Your task to perform on an android device: change notifications settings Image 0: 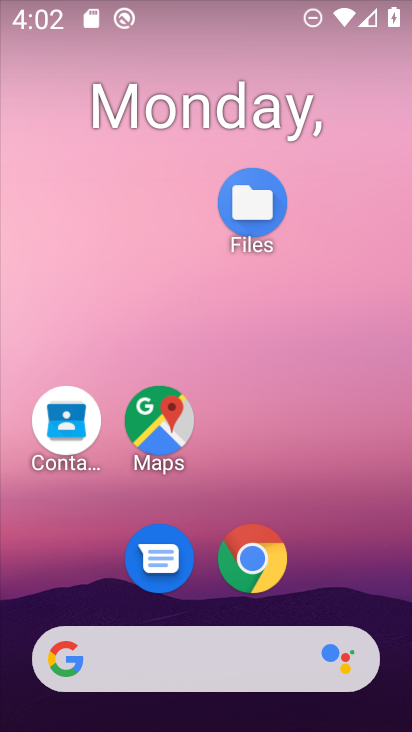
Step 0: drag from (192, 668) to (193, 136)
Your task to perform on an android device: change notifications settings Image 1: 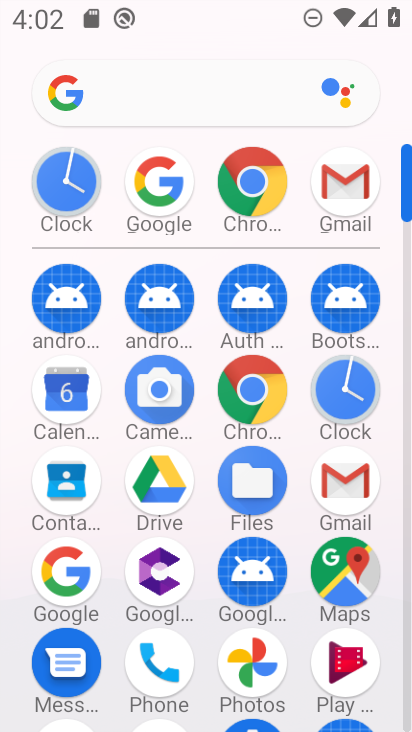
Step 1: drag from (273, 475) to (296, 35)
Your task to perform on an android device: change notifications settings Image 2: 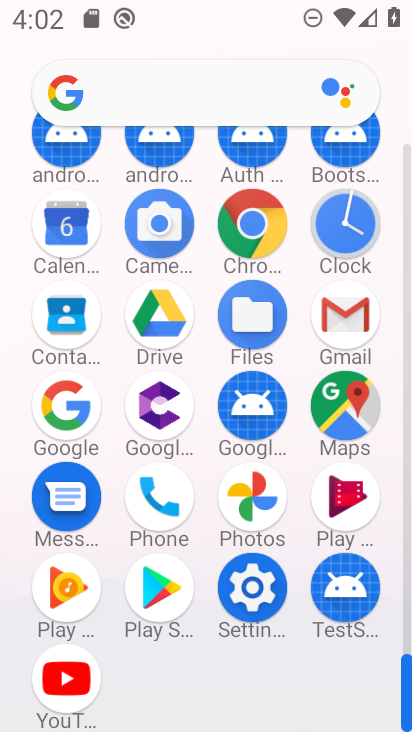
Step 2: click (272, 581)
Your task to perform on an android device: change notifications settings Image 3: 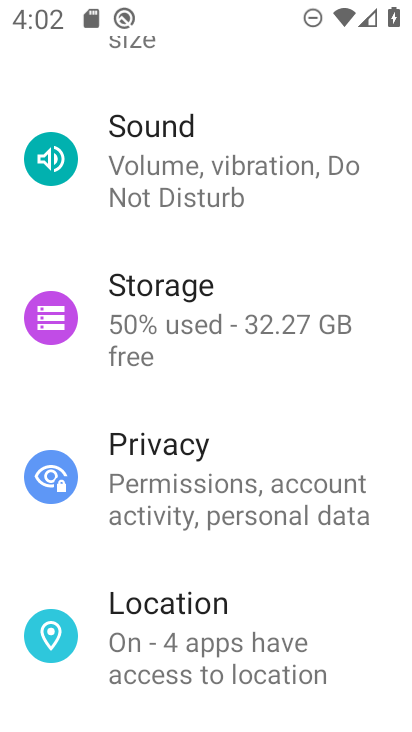
Step 3: drag from (193, 395) to (215, 723)
Your task to perform on an android device: change notifications settings Image 4: 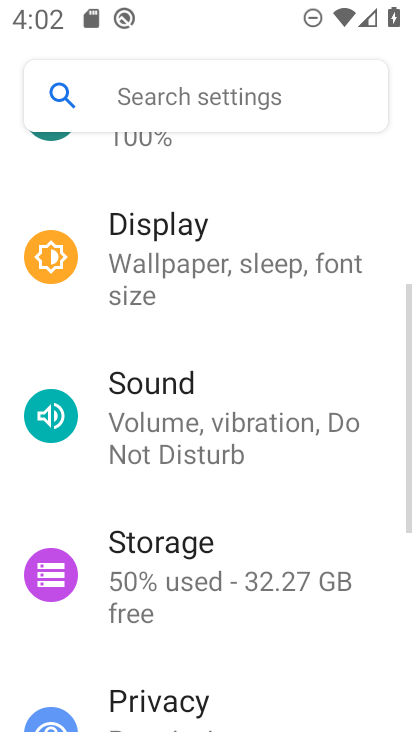
Step 4: drag from (218, 304) to (252, 633)
Your task to perform on an android device: change notifications settings Image 5: 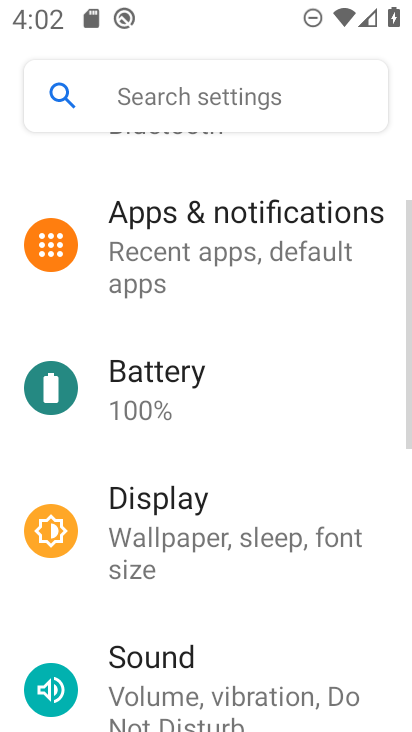
Step 5: click (222, 271)
Your task to perform on an android device: change notifications settings Image 6: 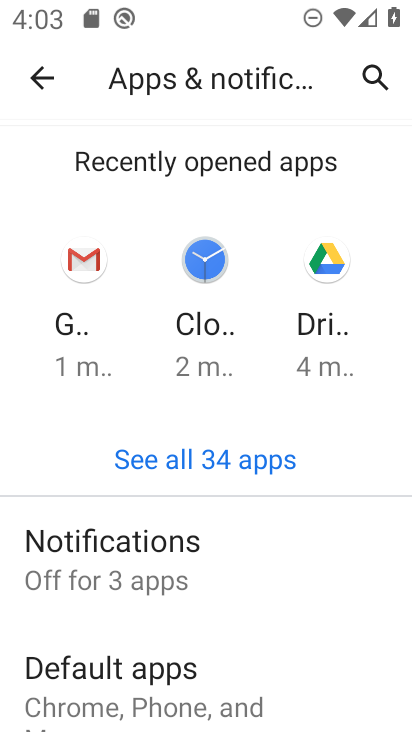
Step 6: click (169, 542)
Your task to perform on an android device: change notifications settings Image 7: 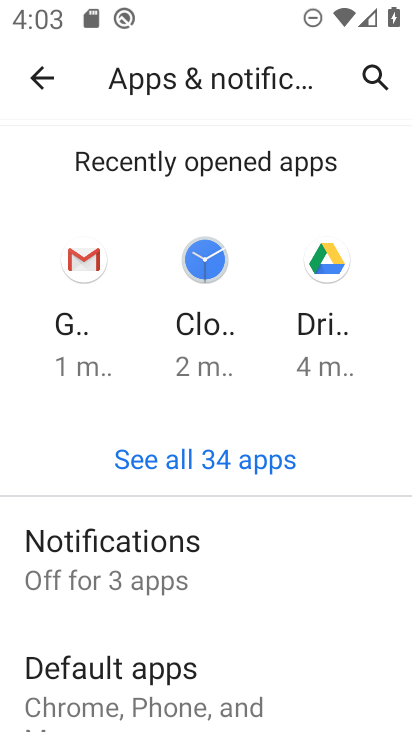
Step 7: click (150, 554)
Your task to perform on an android device: change notifications settings Image 8: 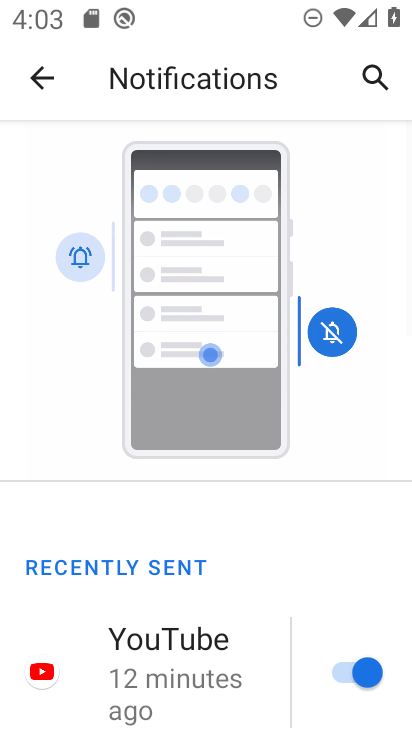
Step 8: click (334, 677)
Your task to perform on an android device: change notifications settings Image 9: 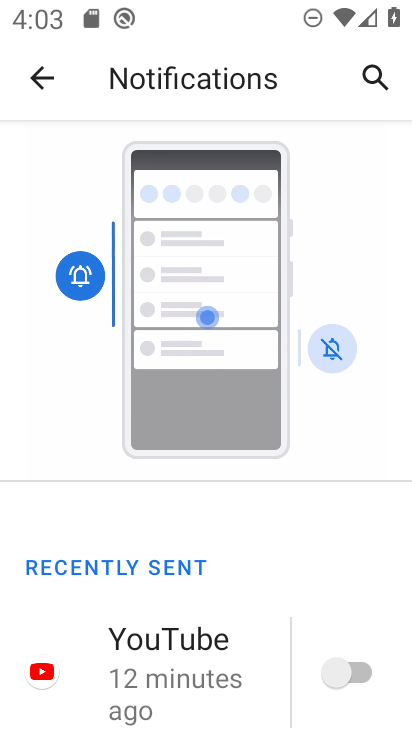
Step 9: task complete